Your task to perform on an android device: Add macbook pro 13 inch to the cart on walmart, then select checkout. Image 0: 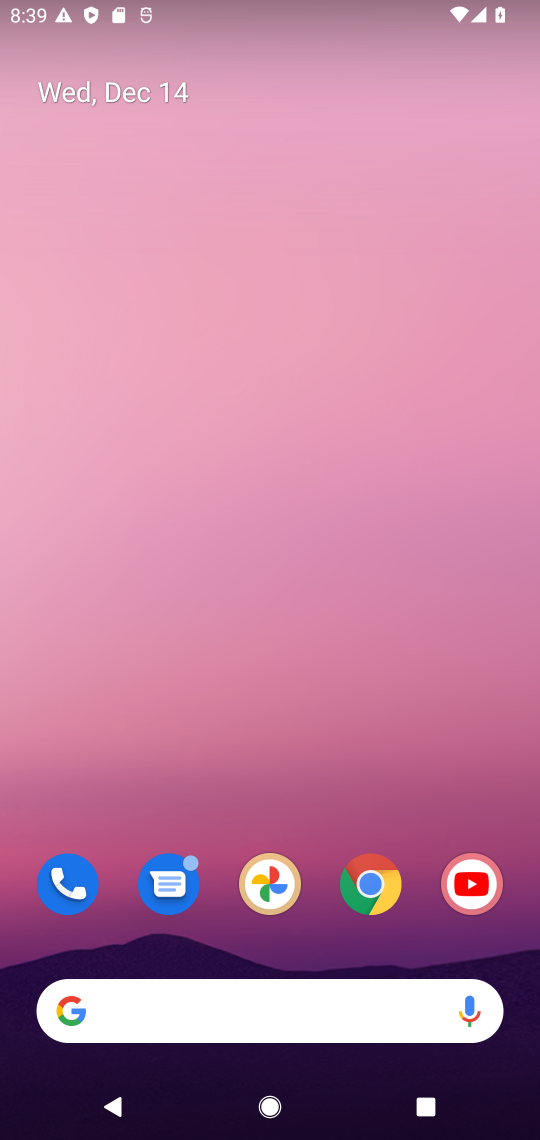
Step 0: click (362, 880)
Your task to perform on an android device: Add macbook pro 13 inch to the cart on walmart, then select checkout. Image 1: 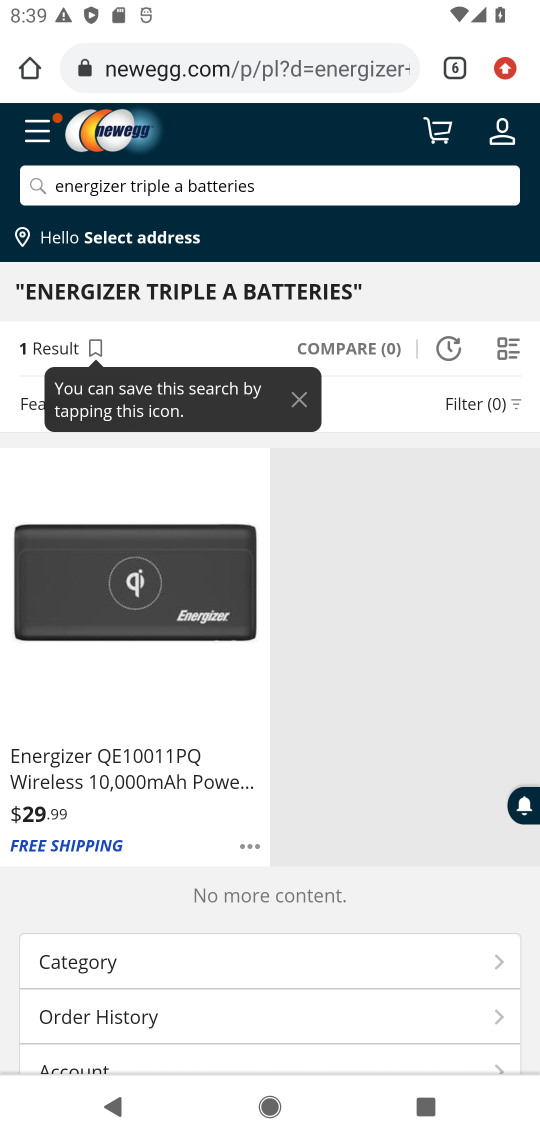
Step 1: click (454, 64)
Your task to perform on an android device: Add macbook pro 13 inch to the cart on walmart, then select checkout. Image 2: 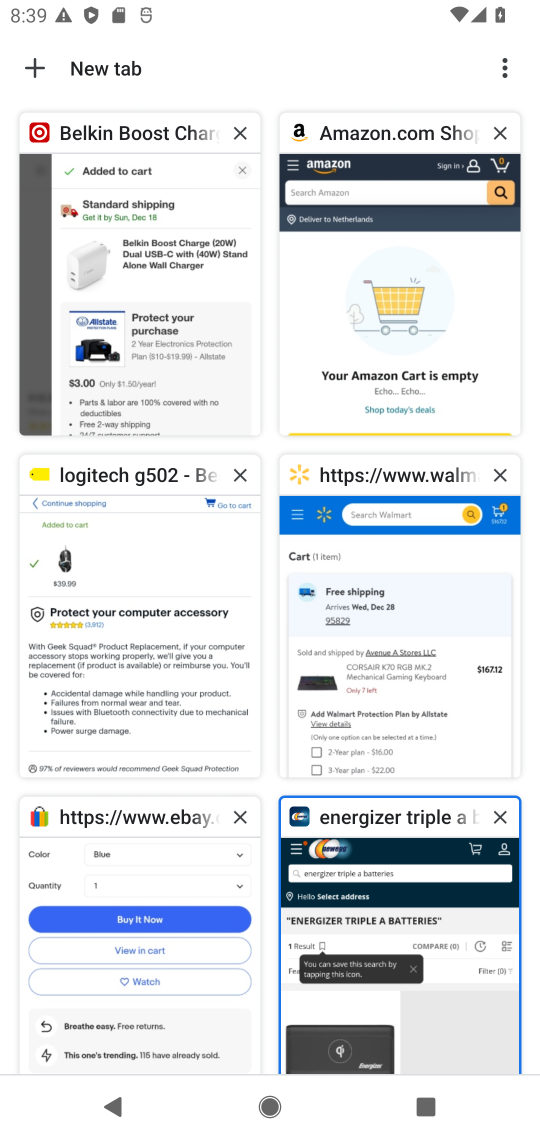
Step 2: click (448, 572)
Your task to perform on an android device: Add macbook pro 13 inch to the cart on walmart, then select checkout. Image 3: 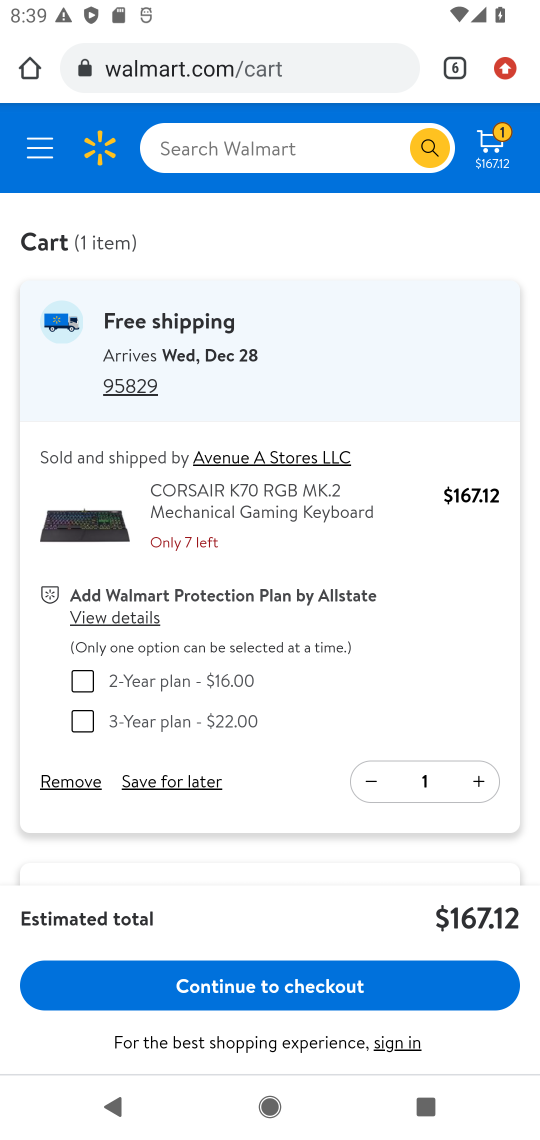
Step 3: click (186, 155)
Your task to perform on an android device: Add macbook pro 13 inch to the cart on walmart, then select checkout. Image 4: 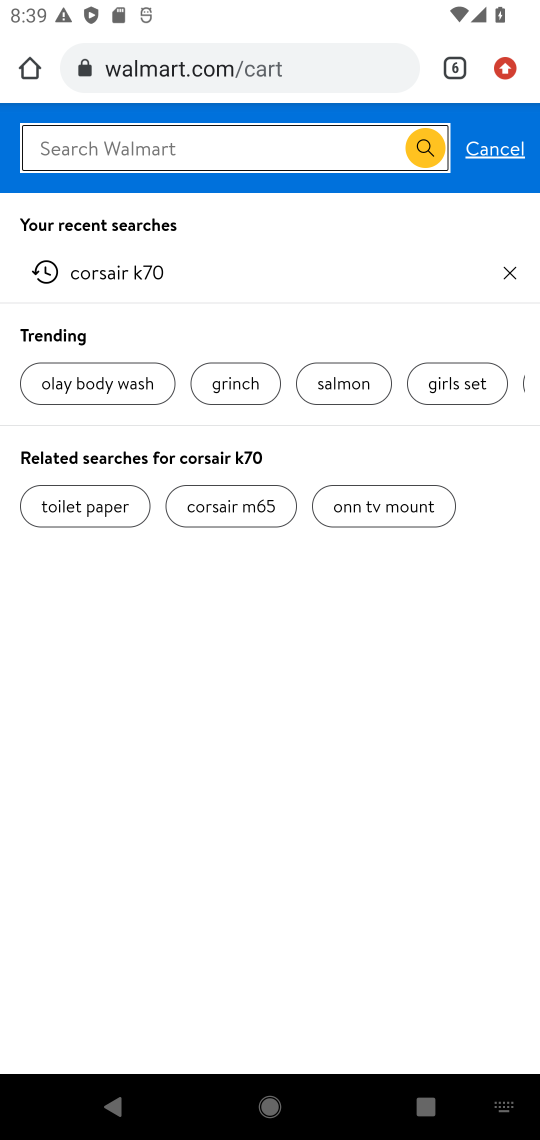
Step 4: type "macbook pro 13 inch"
Your task to perform on an android device: Add macbook pro 13 inch to the cart on walmart, then select checkout. Image 5: 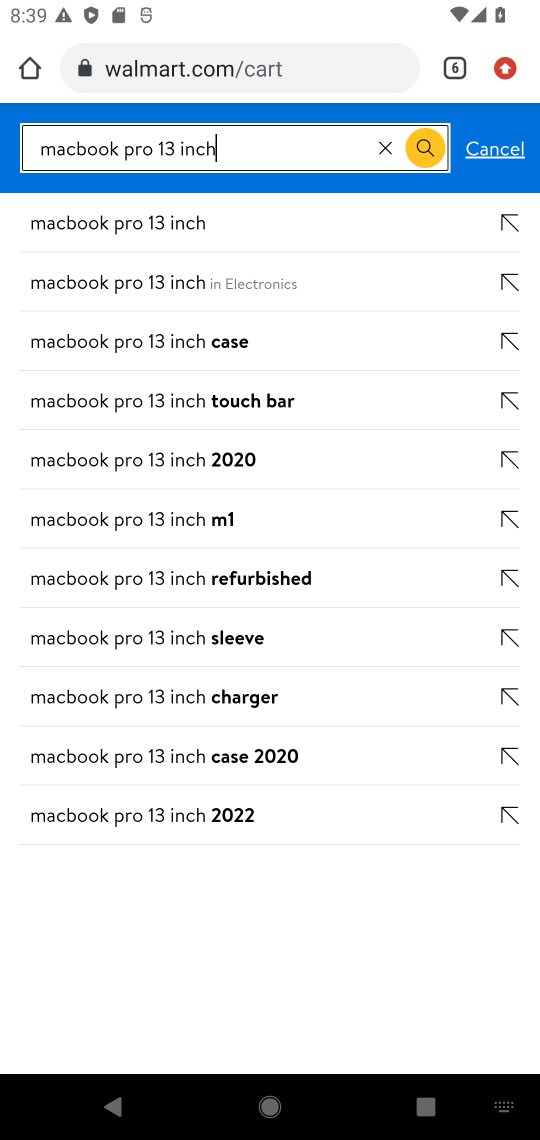
Step 5: click (215, 286)
Your task to perform on an android device: Add macbook pro 13 inch to the cart on walmart, then select checkout. Image 6: 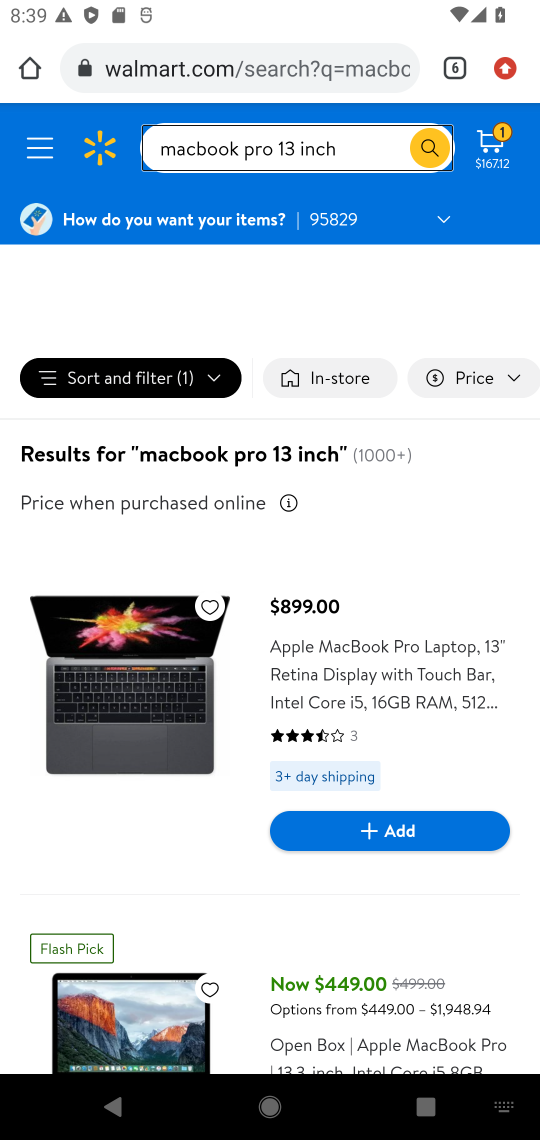
Step 6: click (358, 835)
Your task to perform on an android device: Add macbook pro 13 inch to the cart on walmart, then select checkout. Image 7: 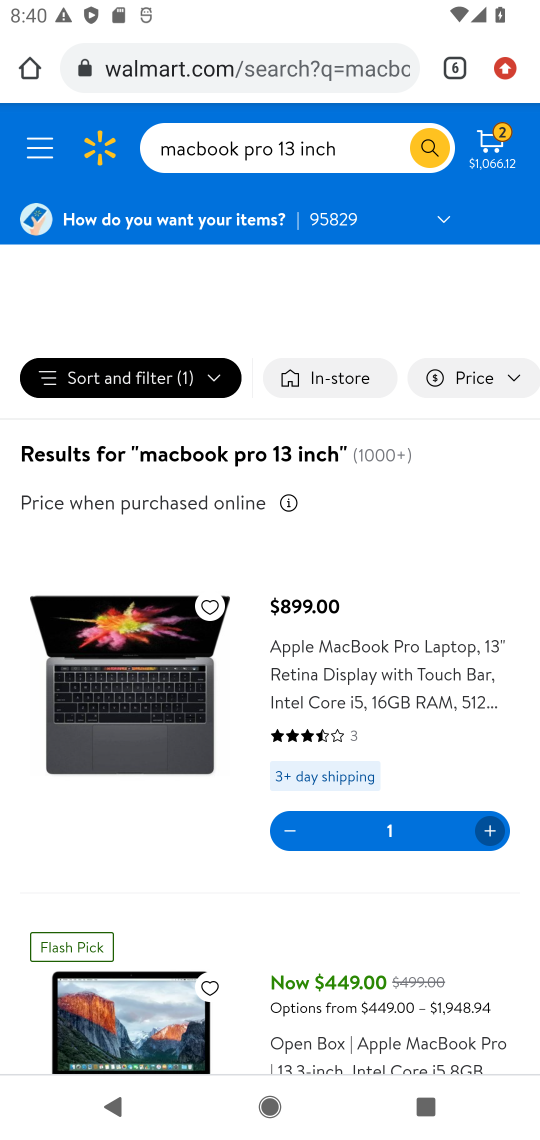
Step 7: task complete